Your task to perform on an android device: Open calendar and show me the third week of next month Image 0: 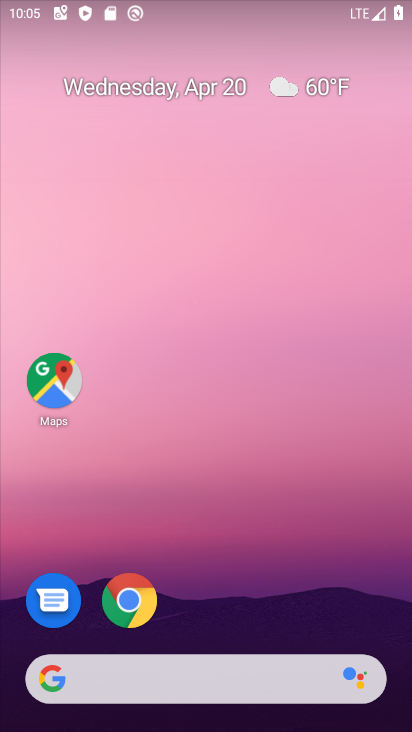
Step 0: click (153, 95)
Your task to perform on an android device: Open calendar and show me the third week of next month Image 1: 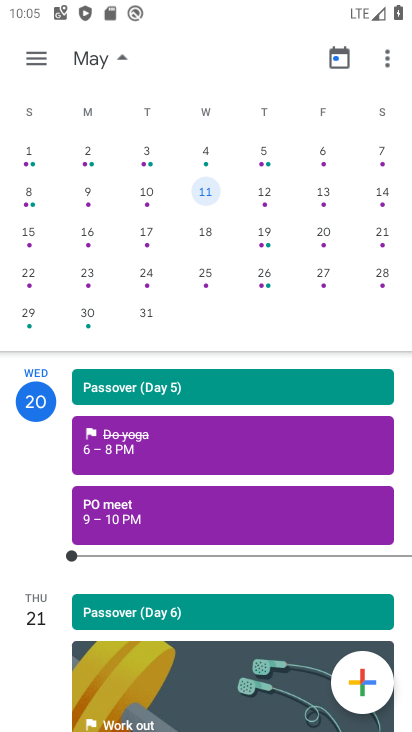
Step 1: click (208, 239)
Your task to perform on an android device: Open calendar and show me the third week of next month Image 2: 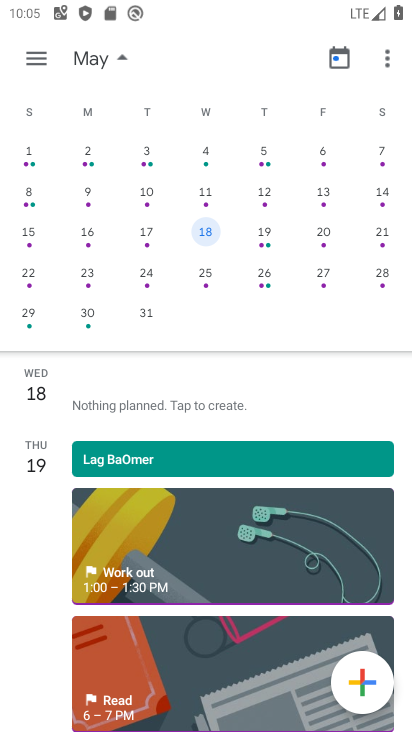
Step 2: task complete